Your task to perform on an android device: stop showing notifications on the lock screen Image 0: 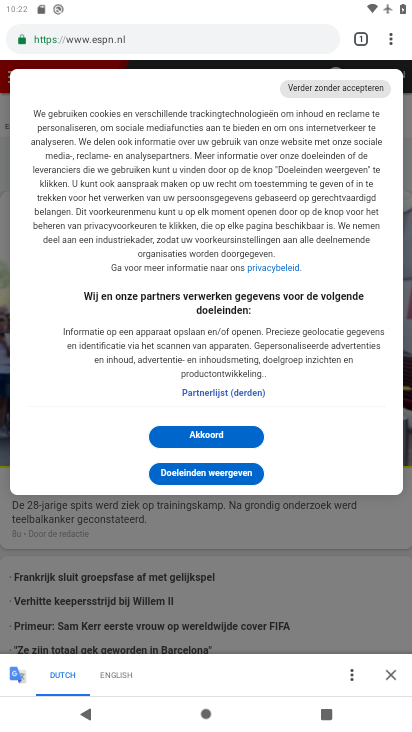
Step 0: press home button
Your task to perform on an android device: stop showing notifications on the lock screen Image 1: 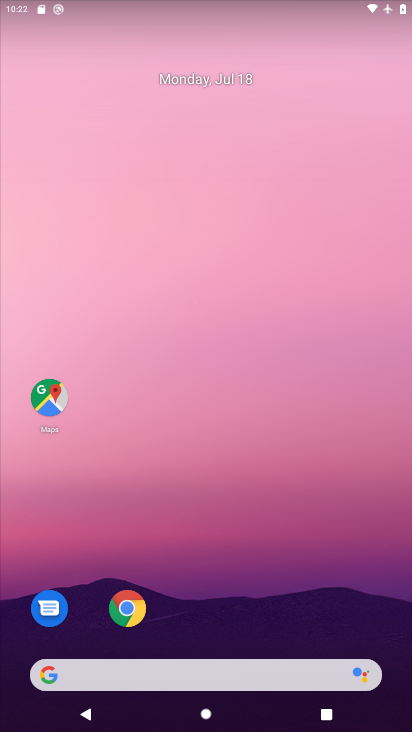
Step 1: drag from (198, 643) to (188, 49)
Your task to perform on an android device: stop showing notifications on the lock screen Image 2: 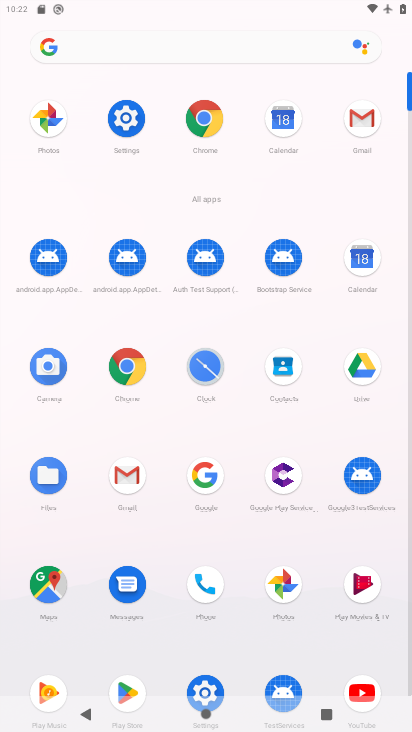
Step 2: click (221, 682)
Your task to perform on an android device: stop showing notifications on the lock screen Image 3: 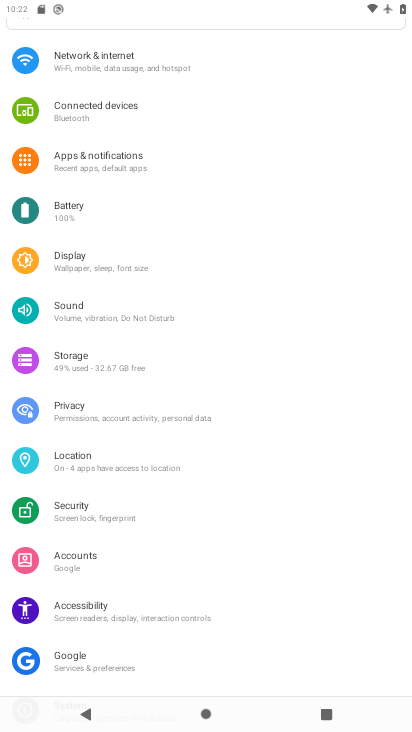
Step 3: click (115, 155)
Your task to perform on an android device: stop showing notifications on the lock screen Image 4: 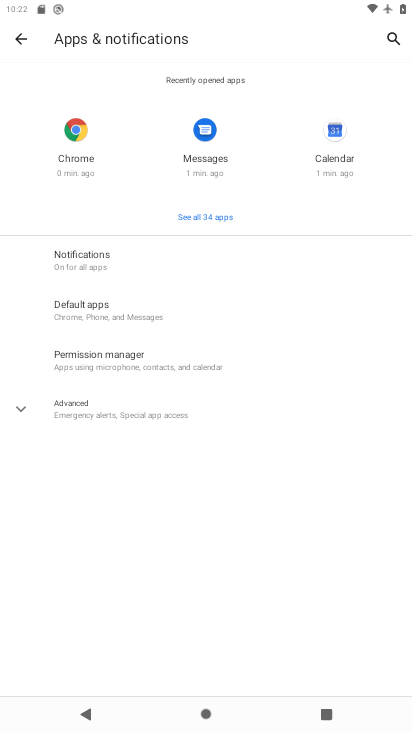
Step 4: click (75, 274)
Your task to perform on an android device: stop showing notifications on the lock screen Image 5: 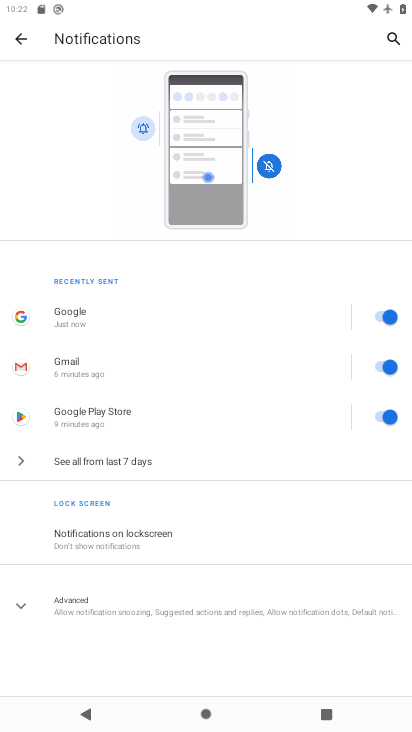
Step 5: click (142, 531)
Your task to perform on an android device: stop showing notifications on the lock screen Image 6: 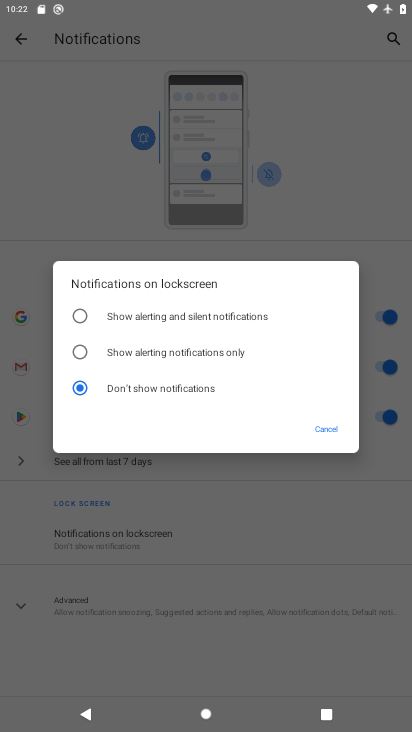
Step 6: task complete